Your task to perform on an android device: uninstall "Google Chrome" Image 0: 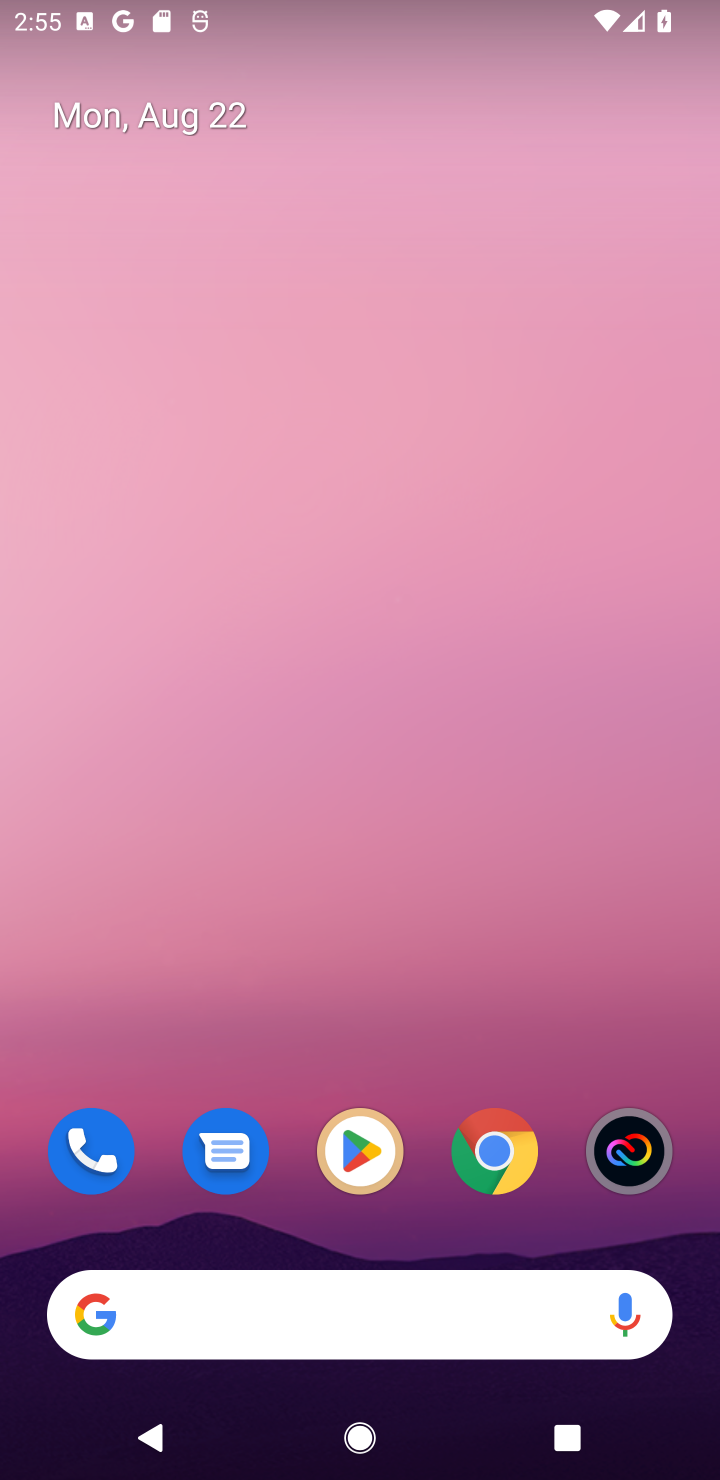
Step 0: click (354, 1153)
Your task to perform on an android device: uninstall "Google Chrome" Image 1: 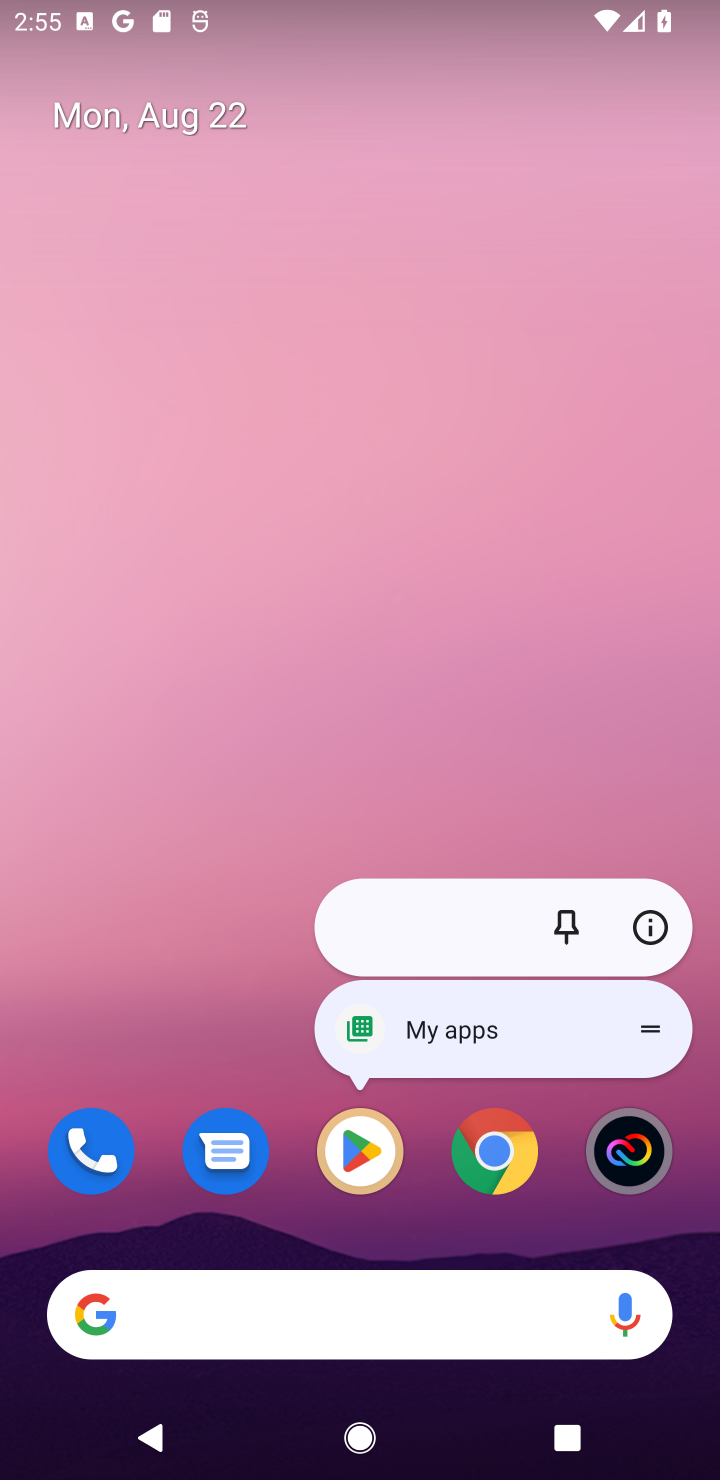
Step 1: click (354, 1159)
Your task to perform on an android device: uninstall "Google Chrome" Image 2: 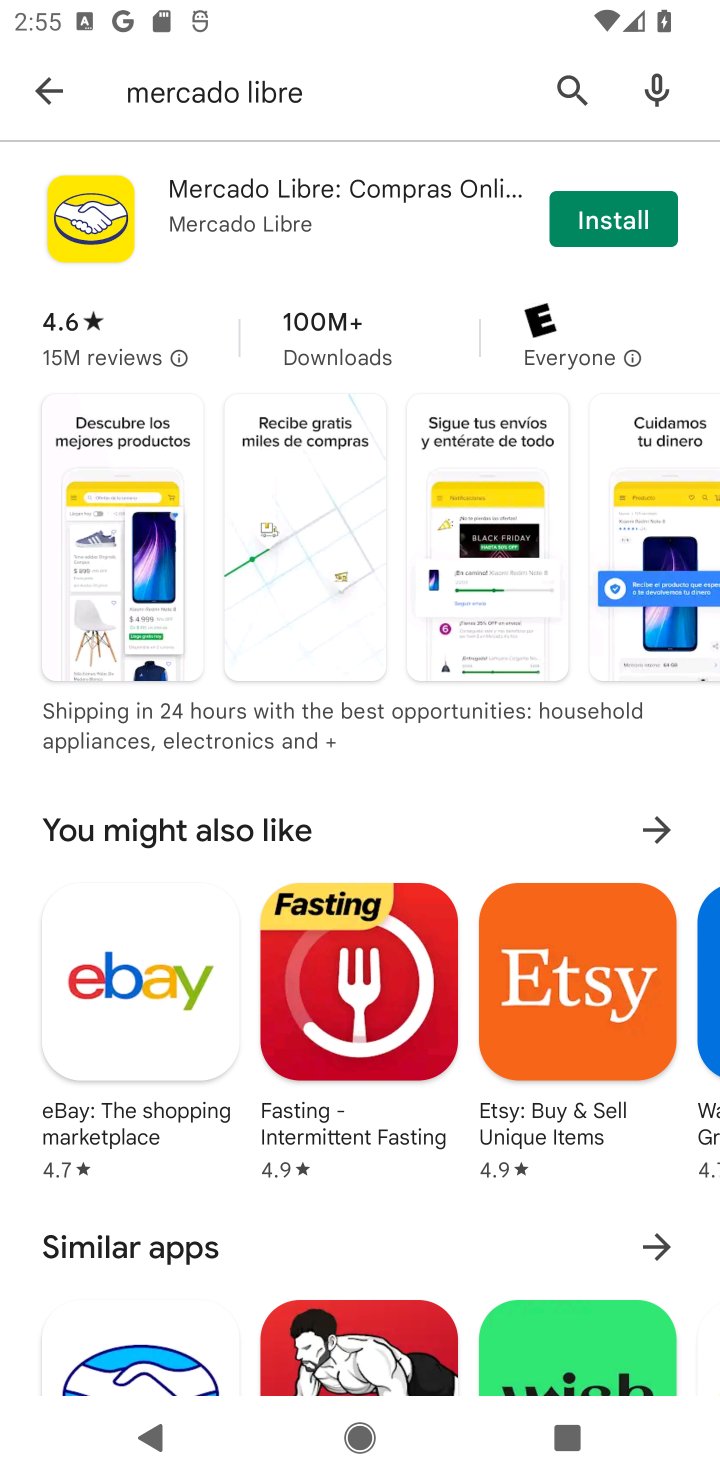
Step 2: click (568, 97)
Your task to perform on an android device: uninstall "Google Chrome" Image 3: 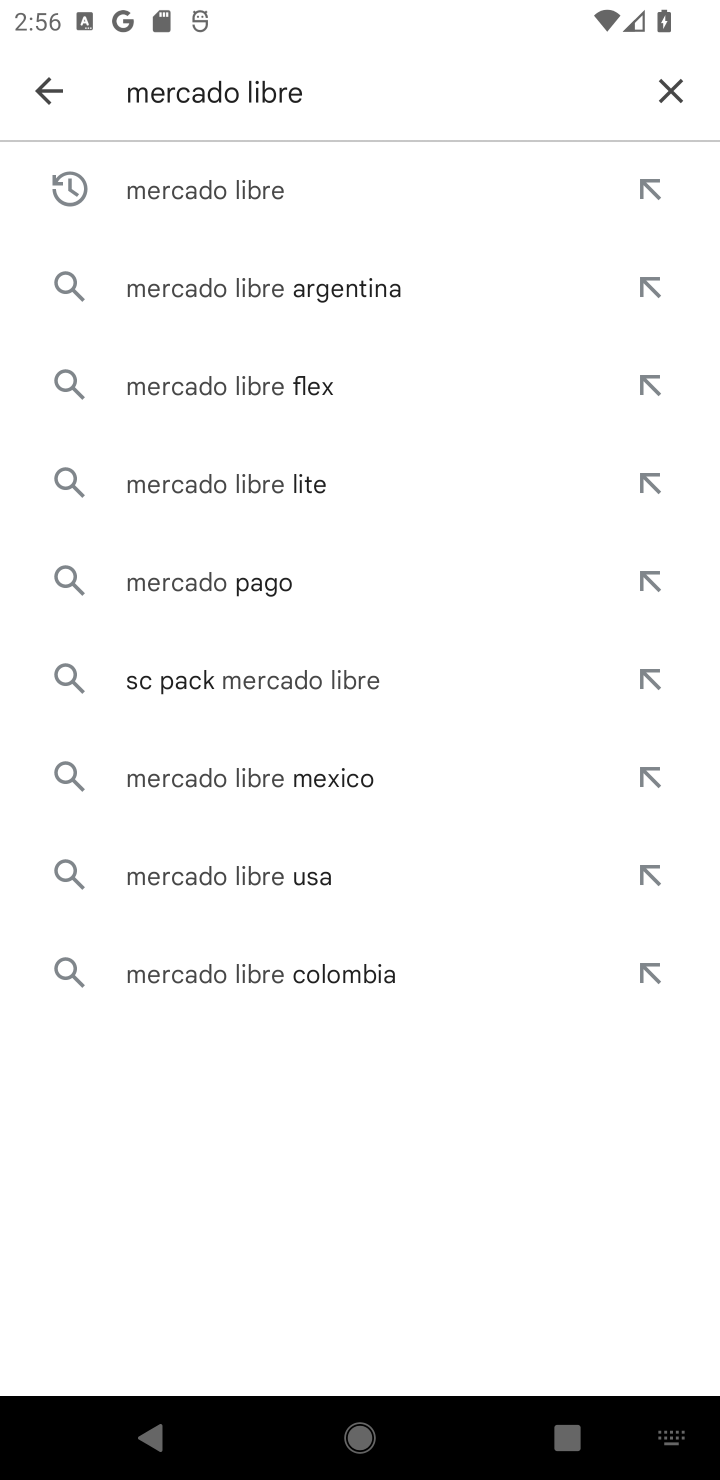
Step 3: click (662, 86)
Your task to perform on an android device: uninstall "Google Chrome" Image 4: 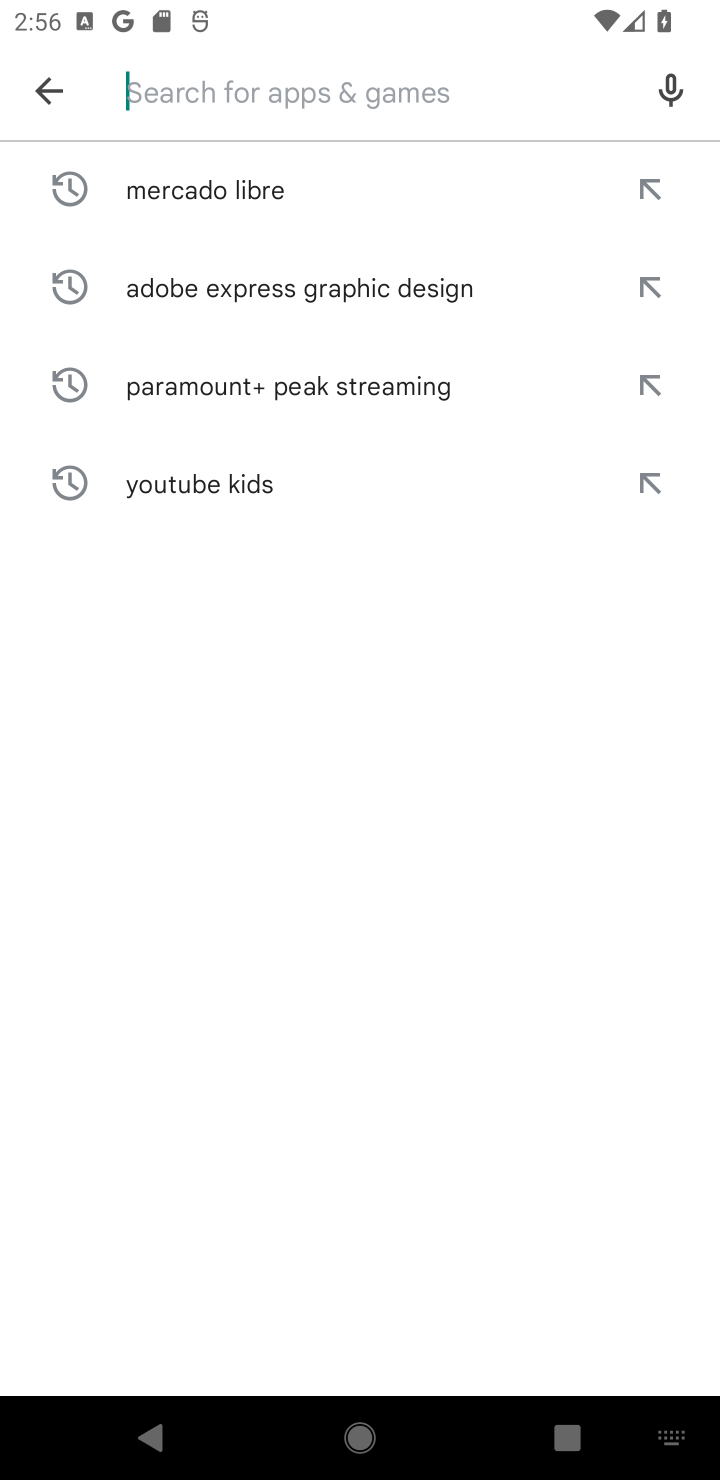
Step 4: type "Google Chrome"
Your task to perform on an android device: uninstall "Google Chrome" Image 5: 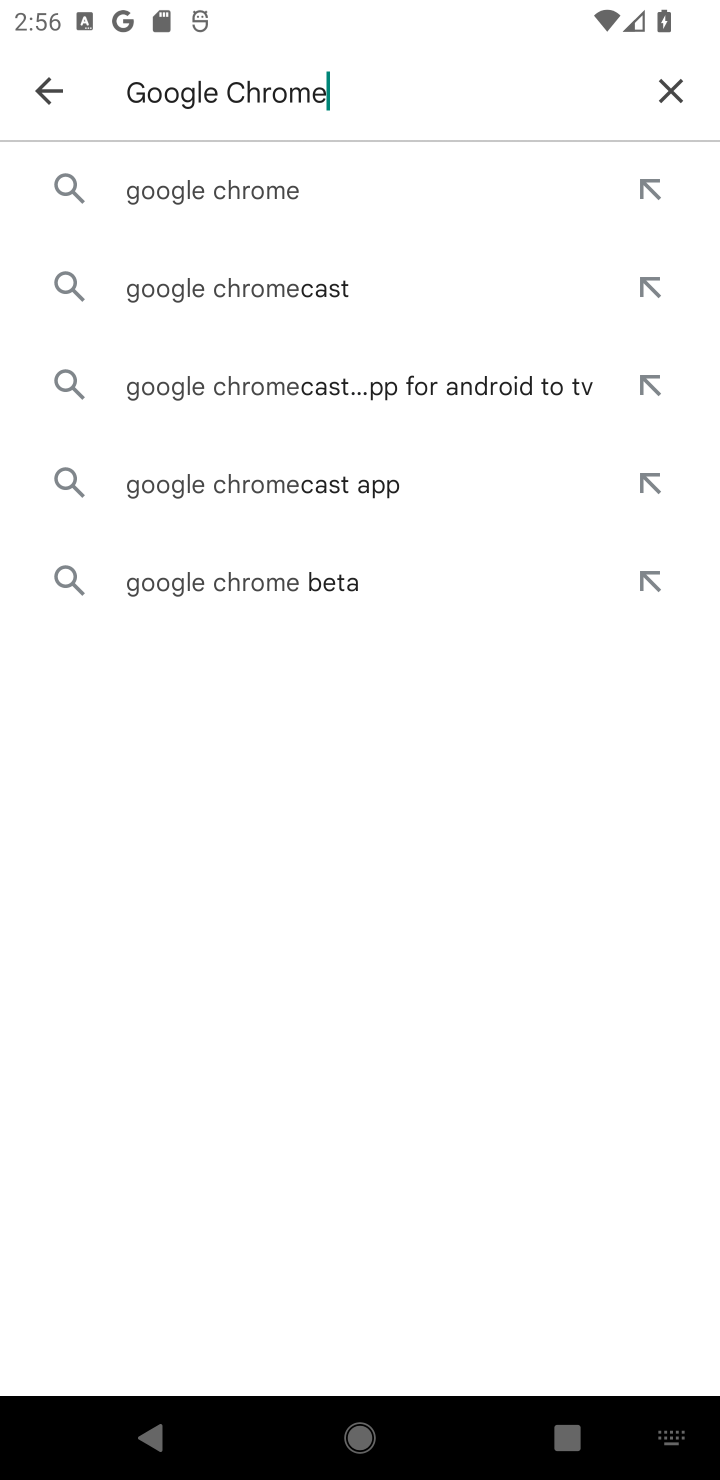
Step 5: click (254, 198)
Your task to perform on an android device: uninstall "Google Chrome" Image 6: 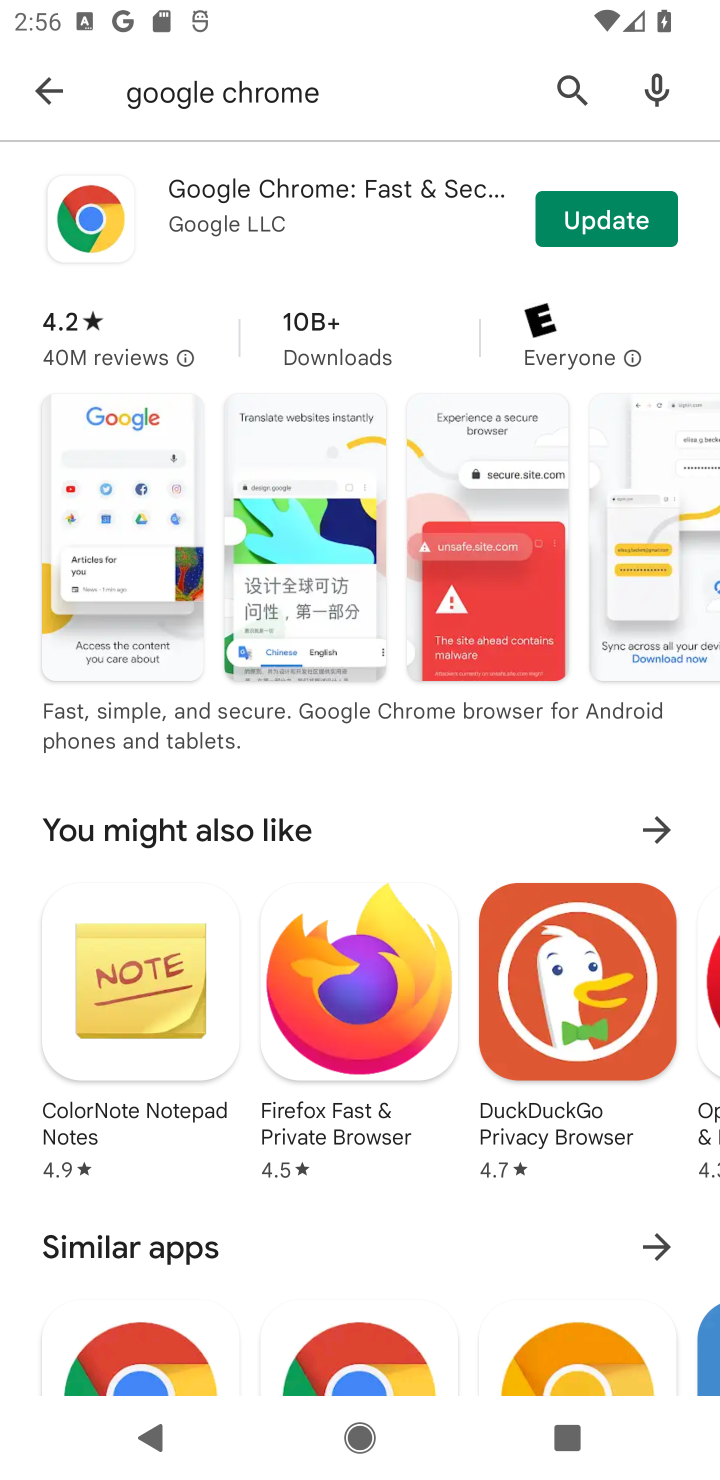
Step 6: click (170, 212)
Your task to perform on an android device: uninstall "Google Chrome" Image 7: 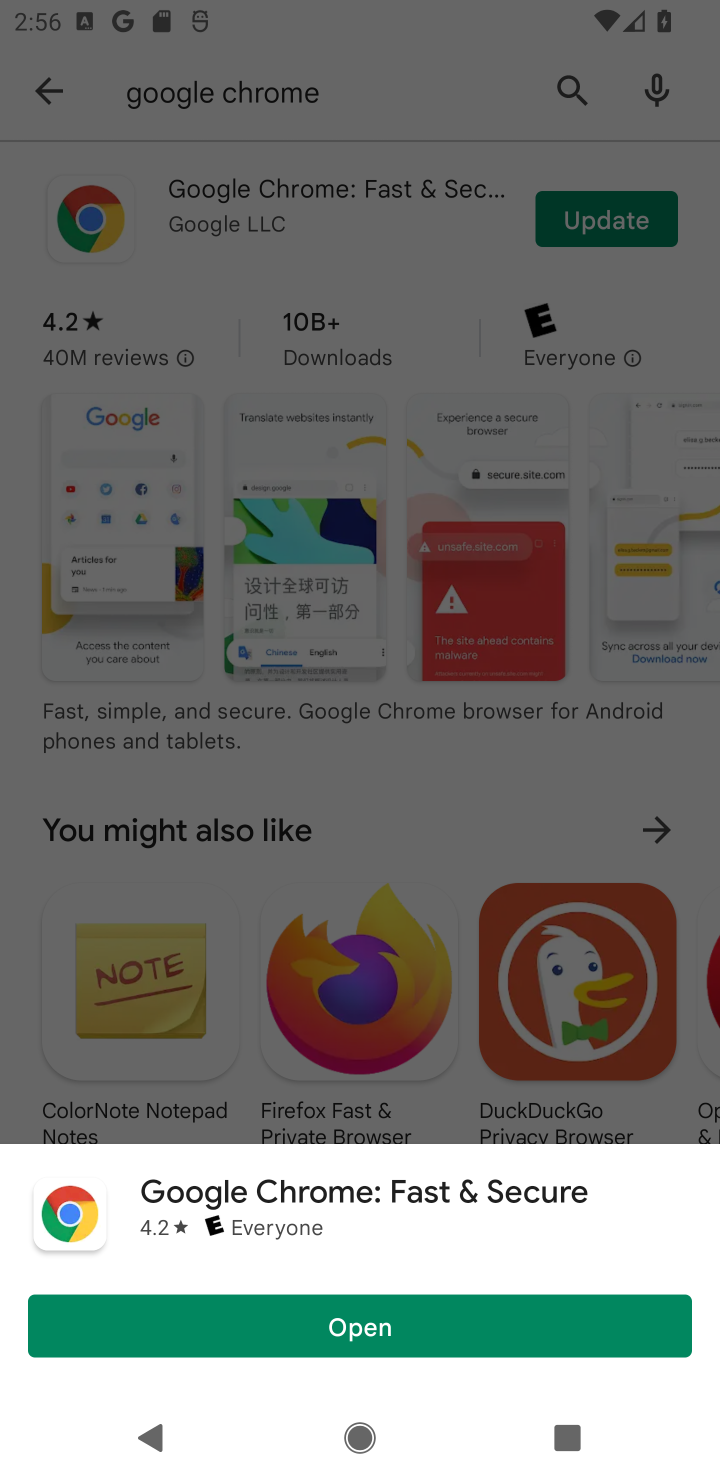
Step 7: click (170, 210)
Your task to perform on an android device: uninstall "Google Chrome" Image 8: 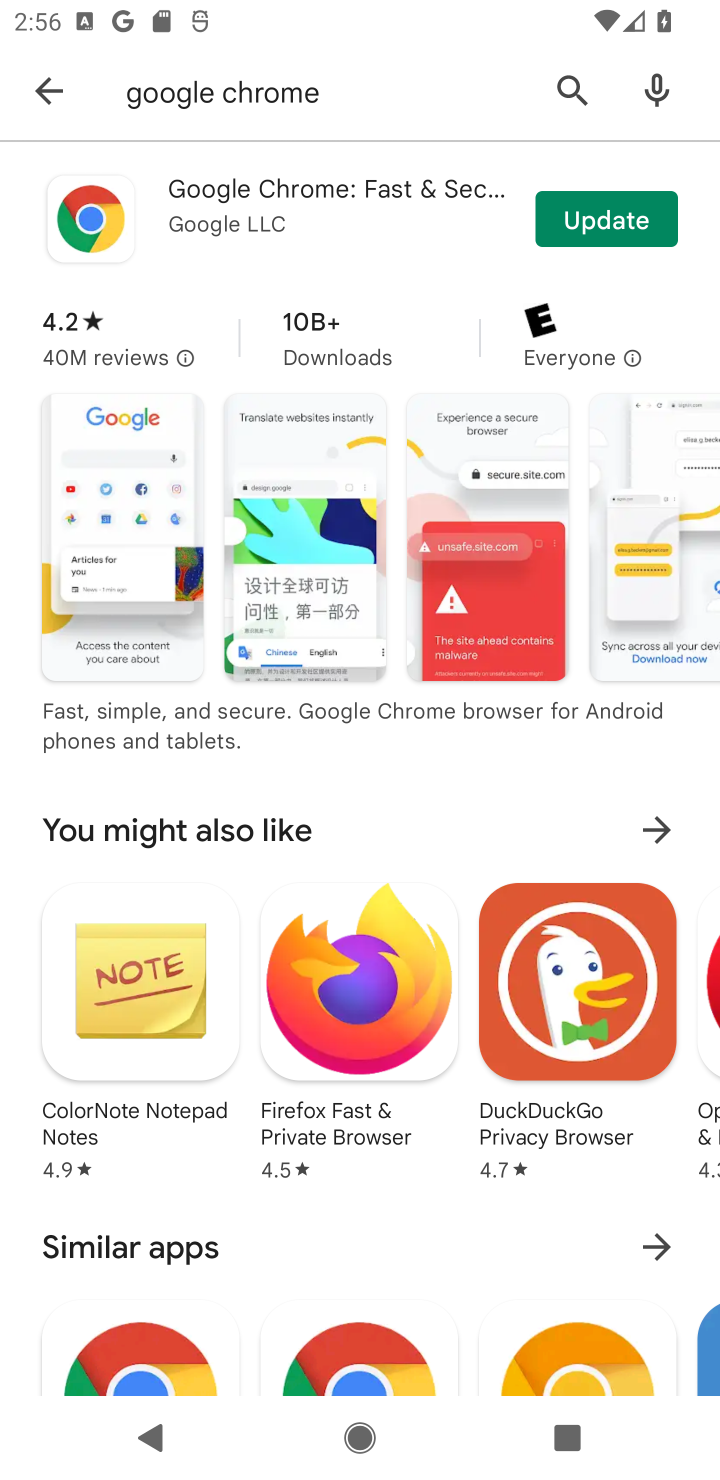
Step 8: click (182, 210)
Your task to perform on an android device: uninstall "Google Chrome" Image 9: 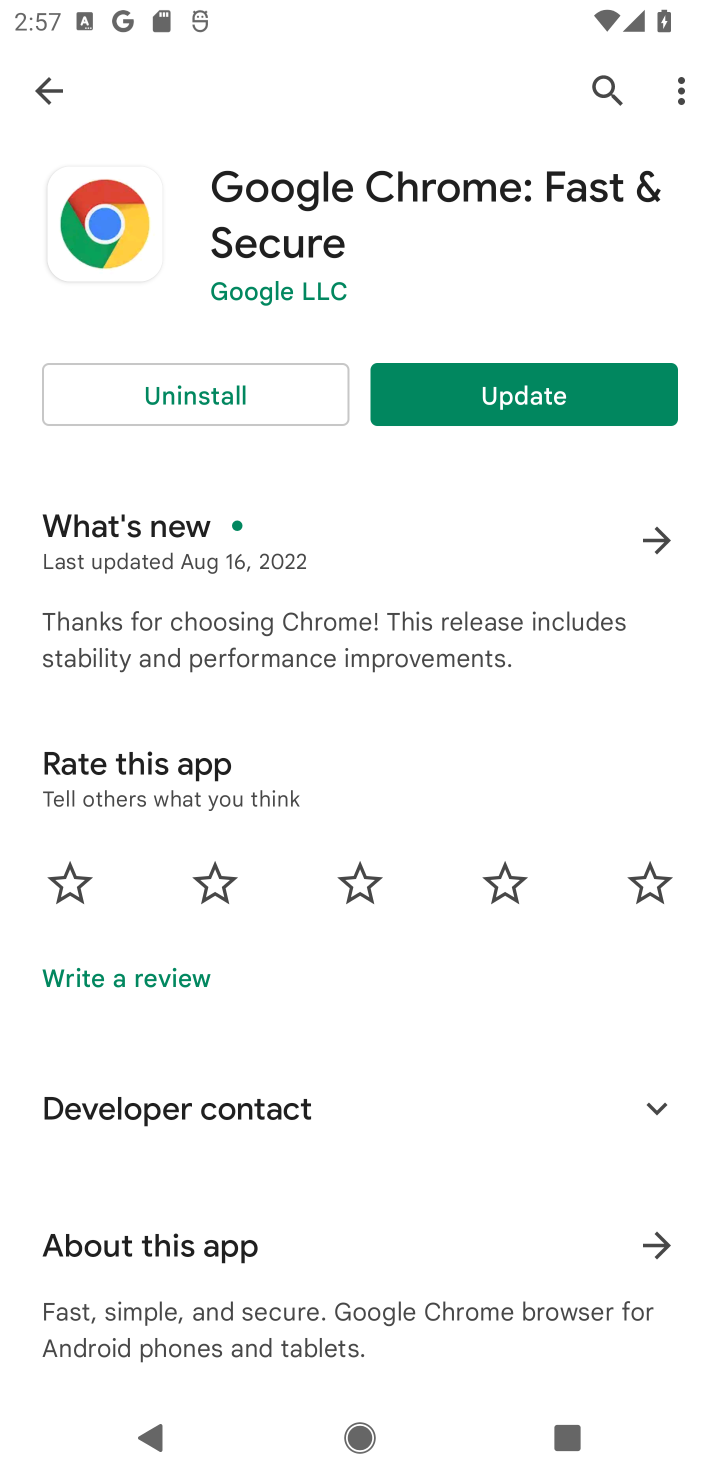
Step 9: click (250, 390)
Your task to perform on an android device: uninstall "Google Chrome" Image 10: 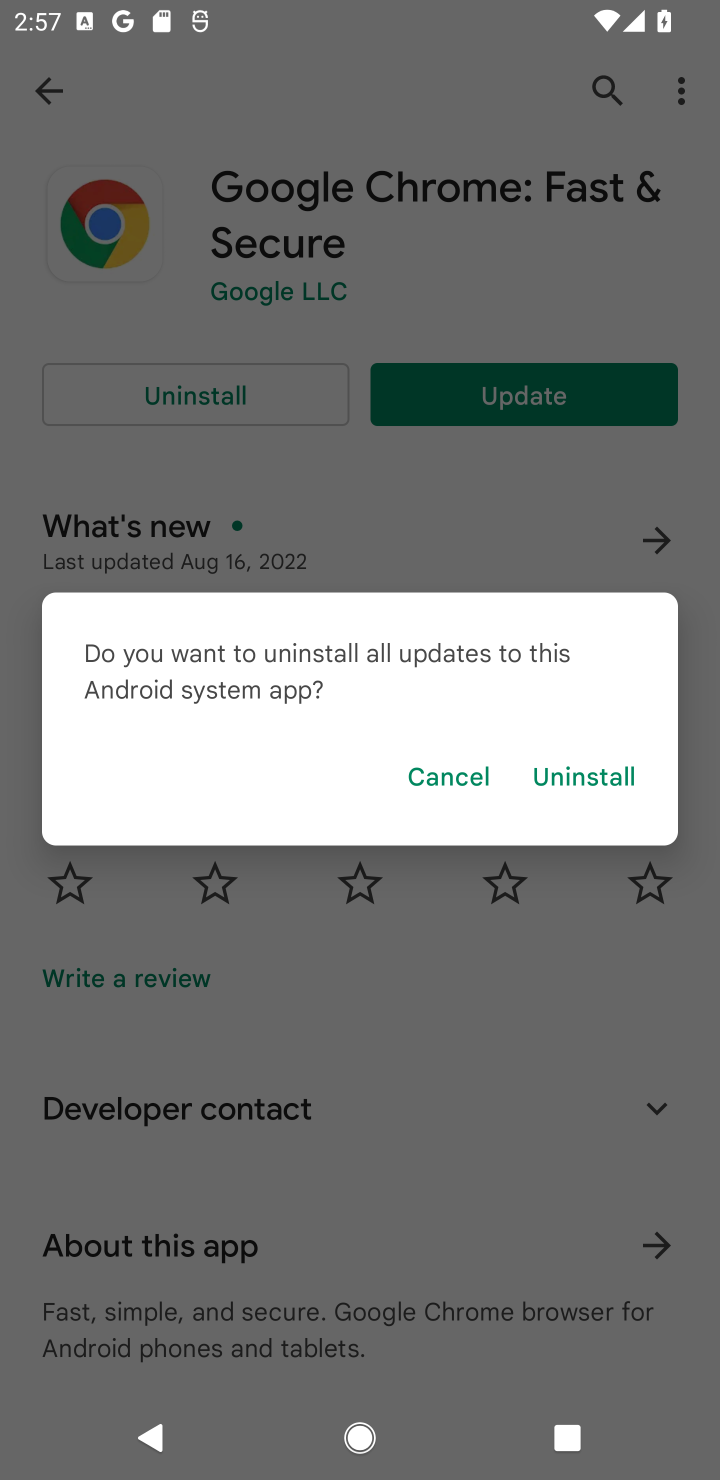
Step 10: click (558, 774)
Your task to perform on an android device: uninstall "Google Chrome" Image 11: 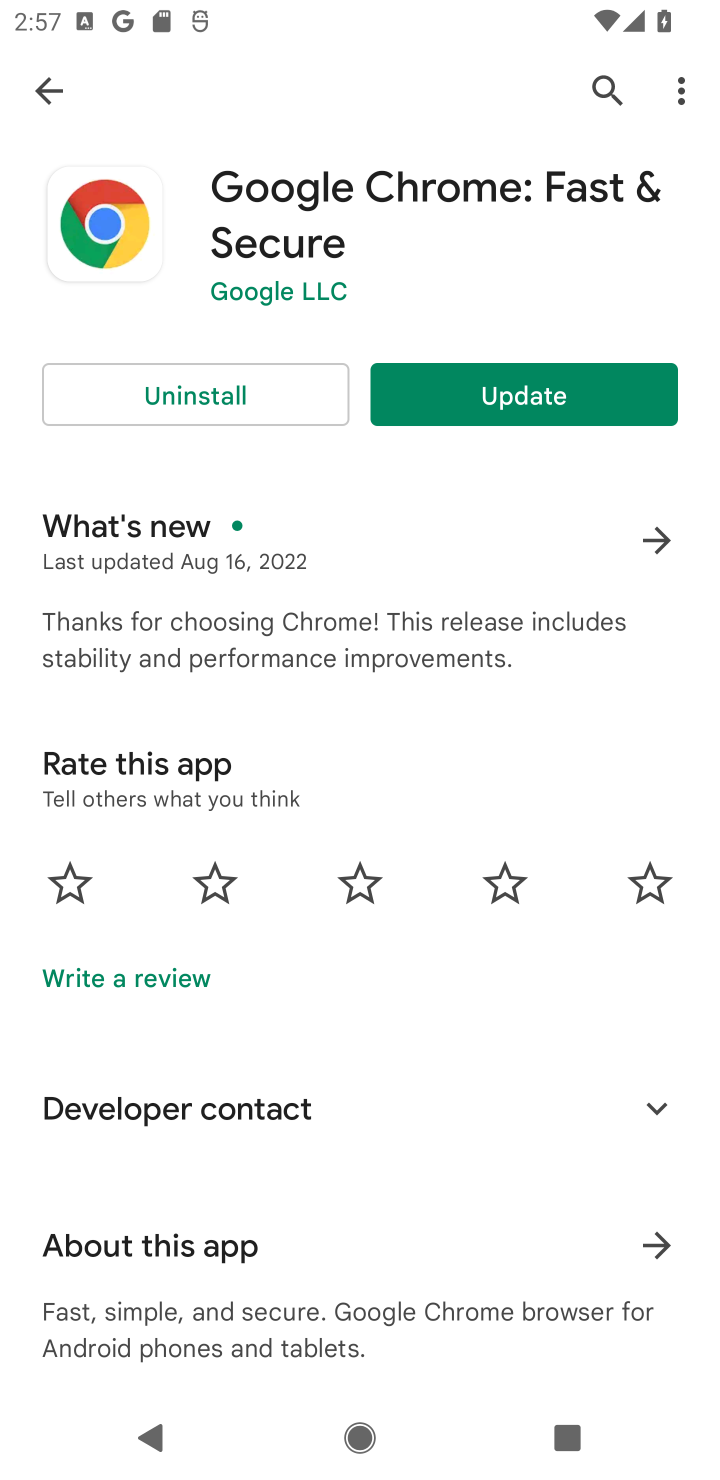
Step 11: click (227, 390)
Your task to perform on an android device: uninstall "Google Chrome" Image 12: 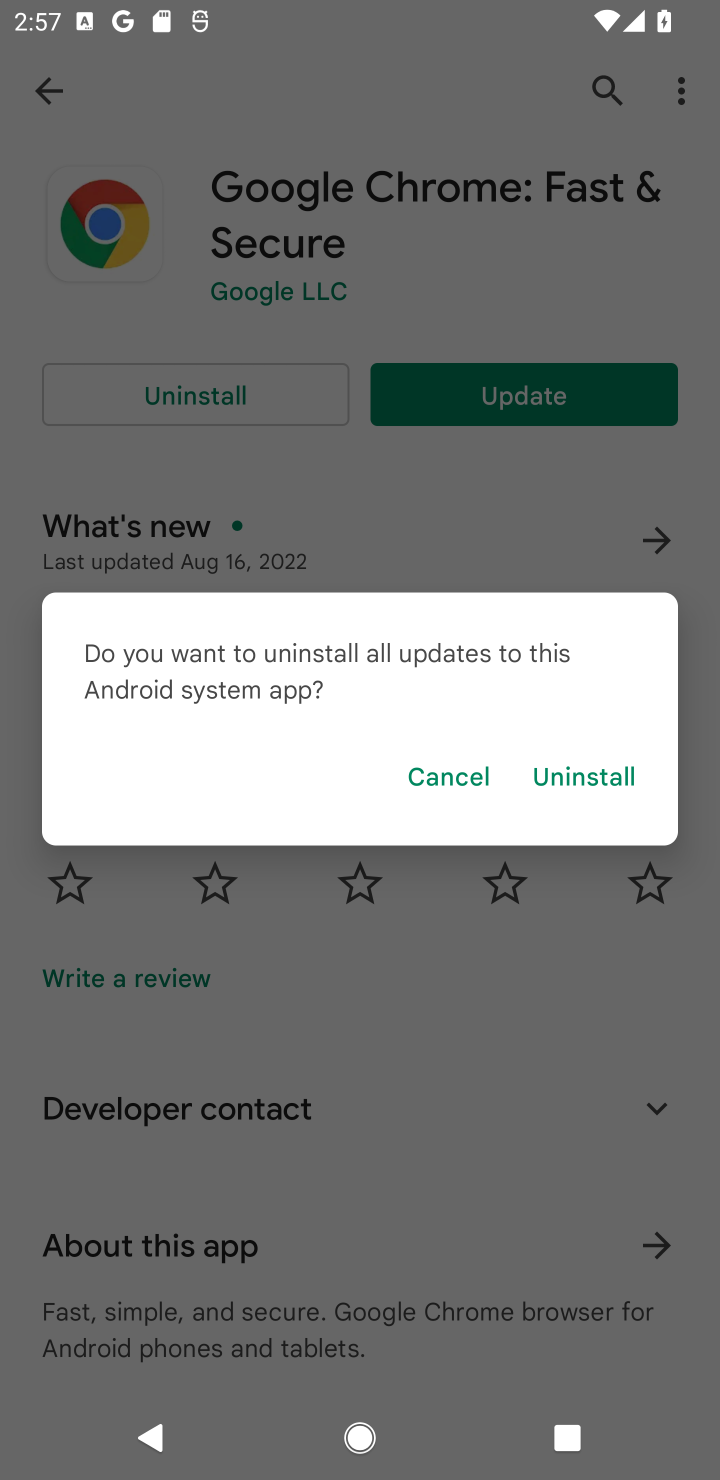
Step 12: click (566, 783)
Your task to perform on an android device: uninstall "Google Chrome" Image 13: 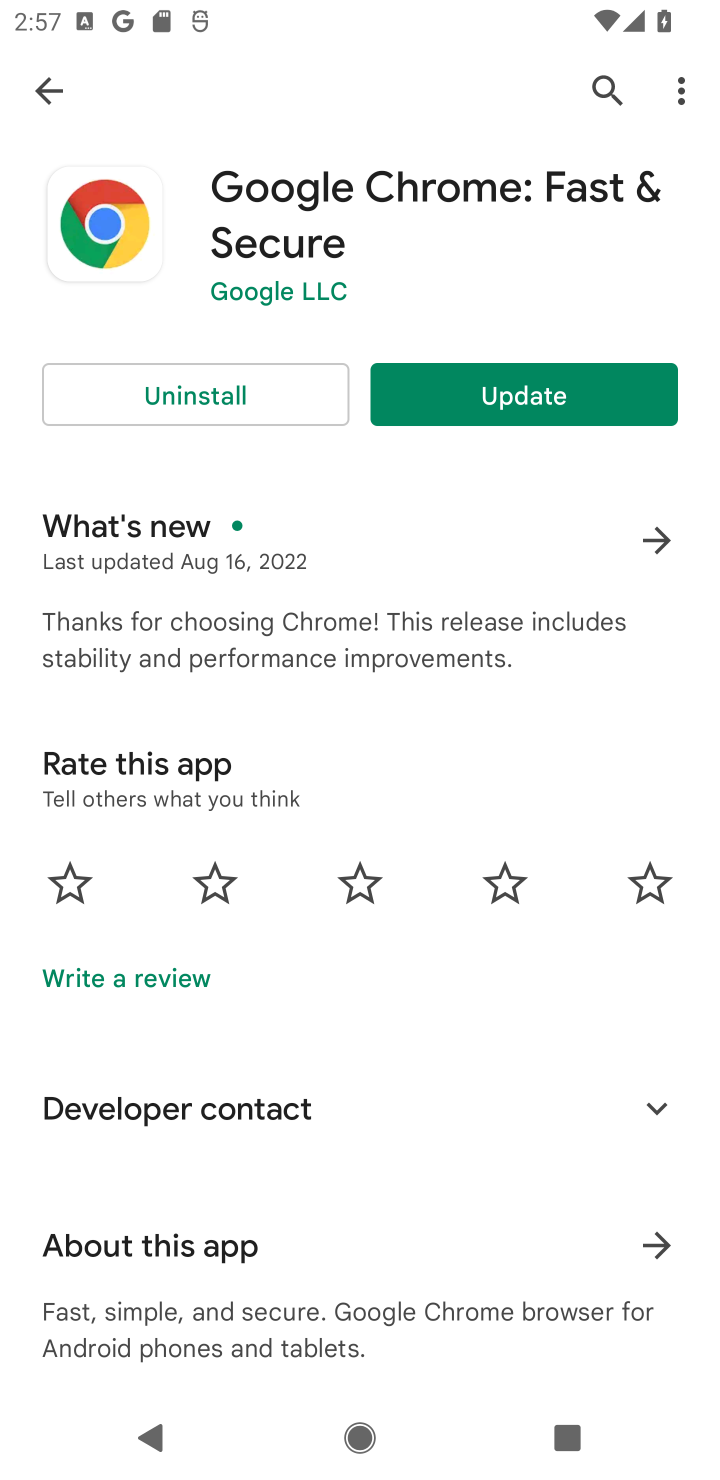
Step 13: task complete